Your task to perform on an android device: toggle priority inbox in the gmail app Image 0: 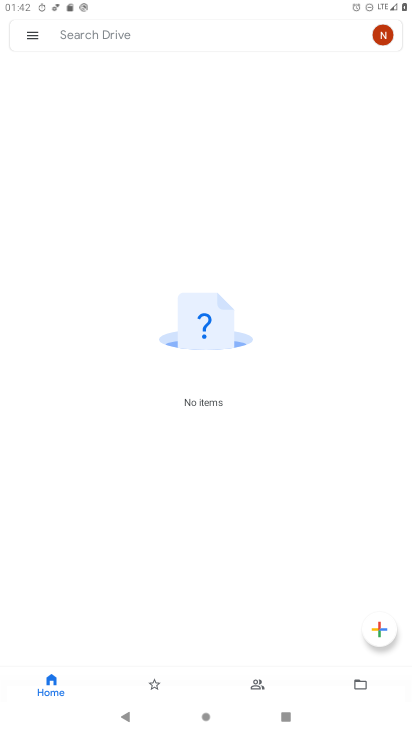
Step 0: press home button
Your task to perform on an android device: toggle priority inbox in the gmail app Image 1: 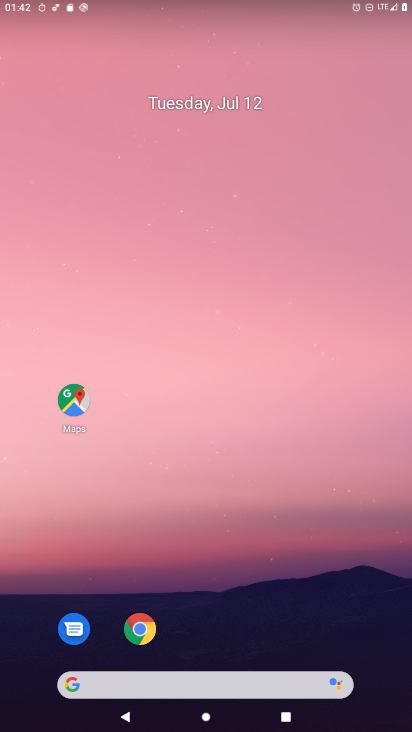
Step 1: drag from (50, 705) to (189, 58)
Your task to perform on an android device: toggle priority inbox in the gmail app Image 2: 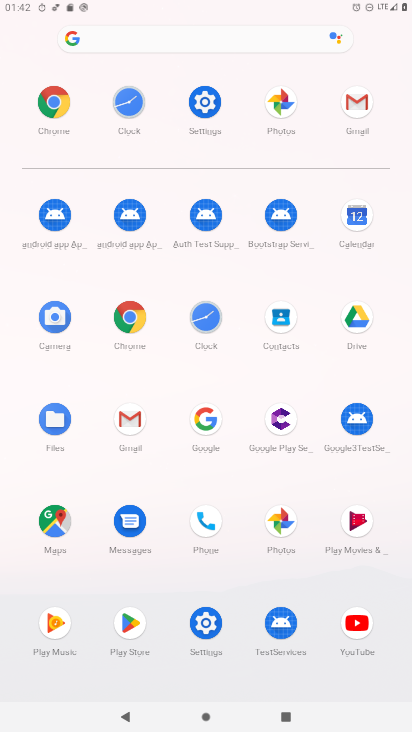
Step 2: click (120, 429)
Your task to perform on an android device: toggle priority inbox in the gmail app Image 3: 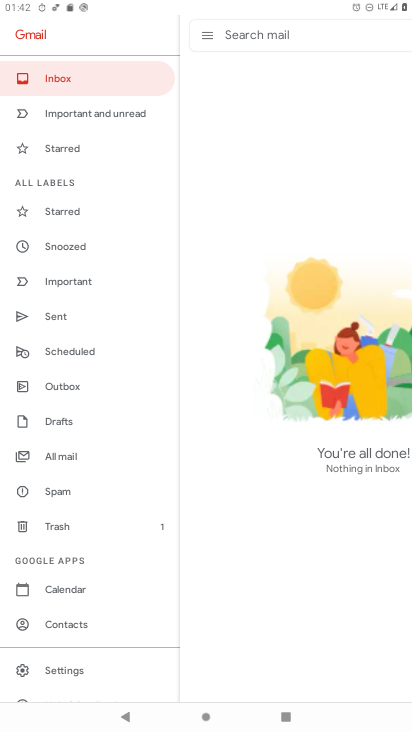
Step 3: click (77, 669)
Your task to perform on an android device: toggle priority inbox in the gmail app Image 4: 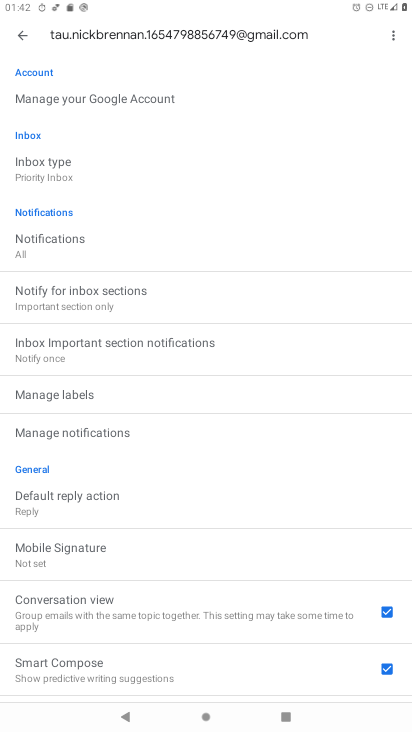
Step 4: click (51, 170)
Your task to perform on an android device: toggle priority inbox in the gmail app Image 5: 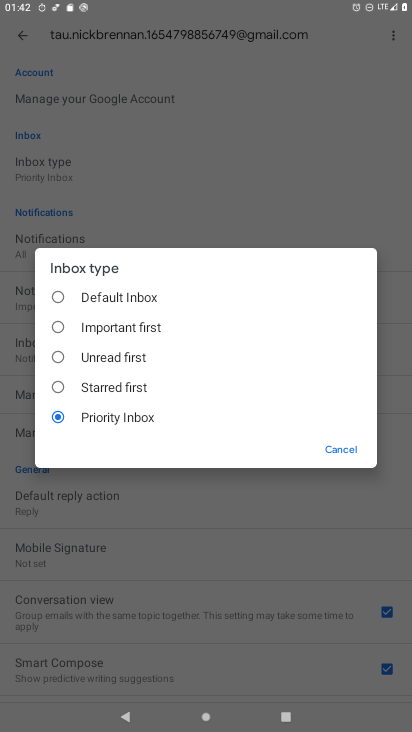
Step 5: task complete